Your task to perform on an android device: turn on improve location accuracy Image 0: 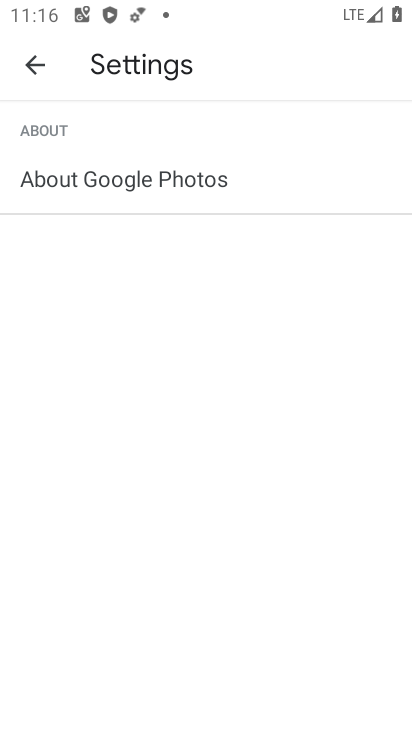
Step 0: press home button
Your task to perform on an android device: turn on improve location accuracy Image 1: 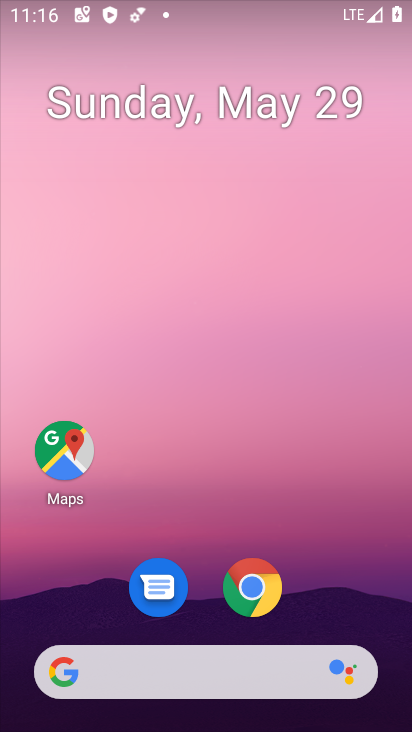
Step 1: drag from (346, 542) to (210, 81)
Your task to perform on an android device: turn on improve location accuracy Image 2: 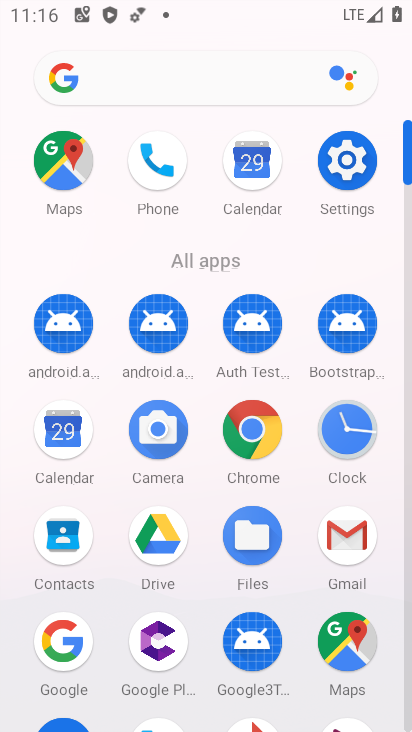
Step 2: click (356, 161)
Your task to perform on an android device: turn on improve location accuracy Image 3: 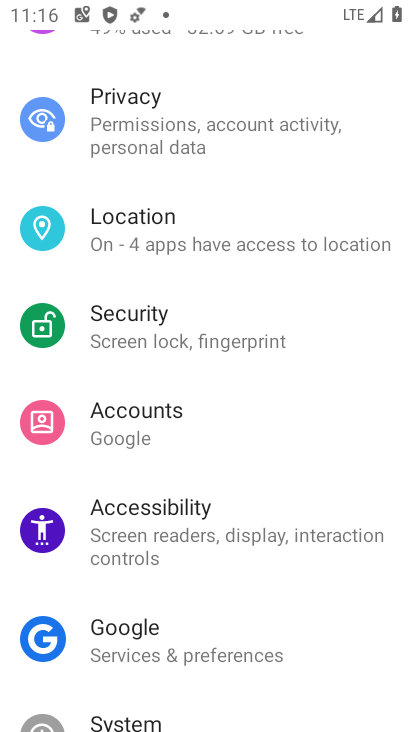
Step 3: drag from (217, 537) to (241, 131)
Your task to perform on an android device: turn on improve location accuracy Image 4: 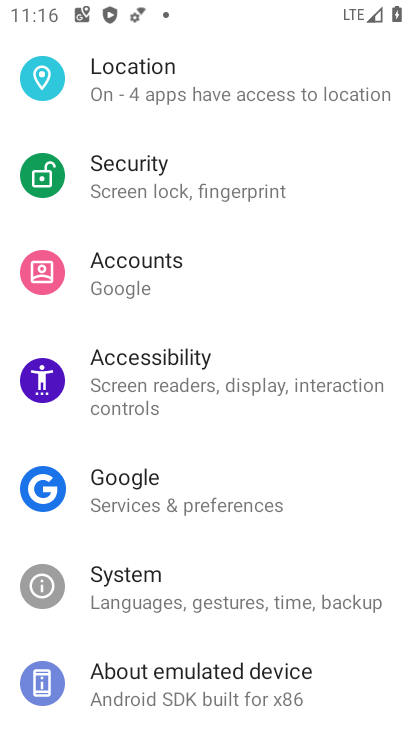
Step 4: click (233, 95)
Your task to perform on an android device: turn on improve location accuracy Image 5: 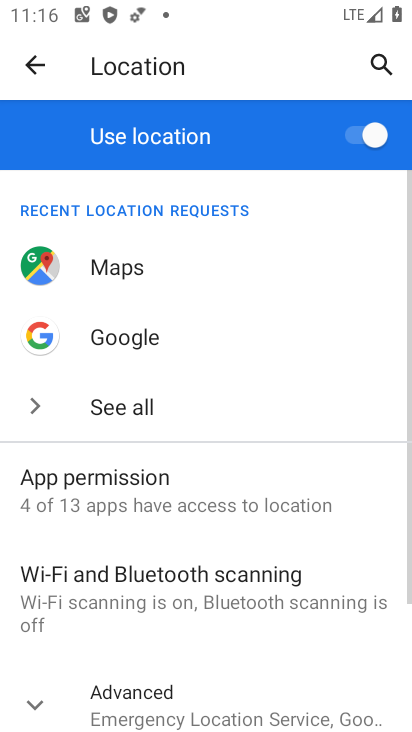
Step 5: click (251, 701)
Your task to perform on an android device: turn on improve location accuracy Image 6: 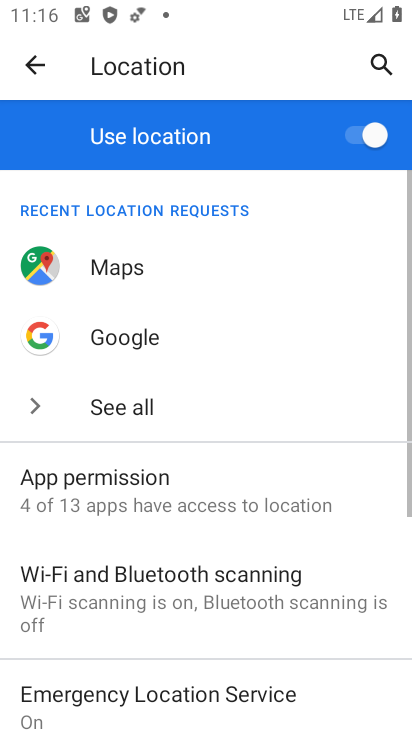
Step 6: drag from (258, 645) to (290, 255)
Your task to perform on an android device: turn on improve location accuracy Image 7: 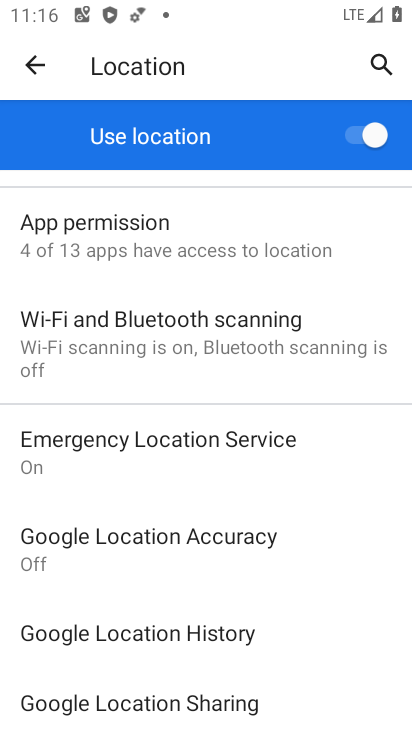
Step 7: click (244, 553)
Your task to perform on an android device: turn on improve location accuracy Image 8: 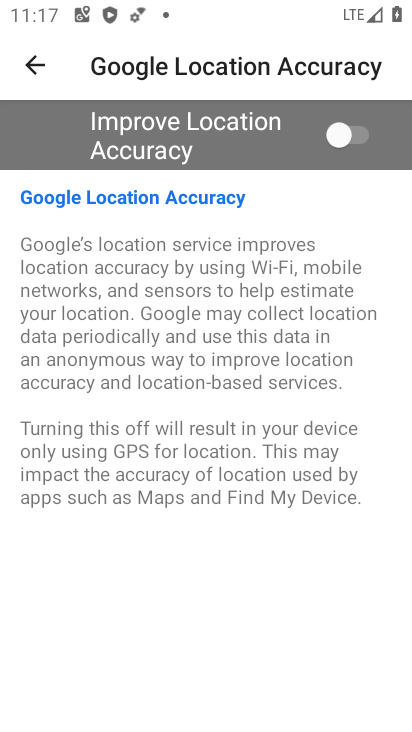
Step 8: click (362, 114)
Your task to perform on an android device: turn on improve location accuracy Image 9: 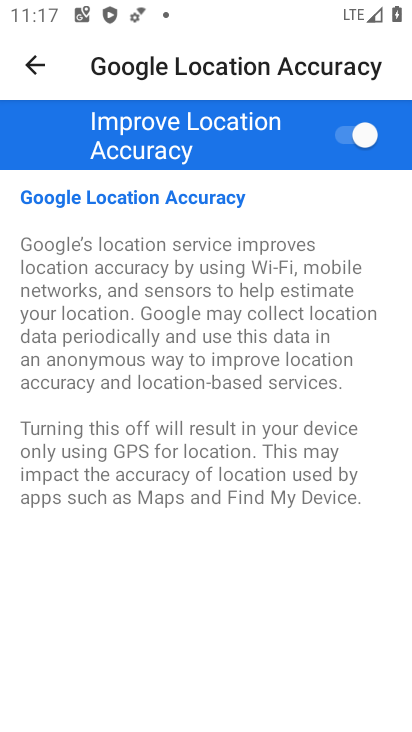
Step 9: task complete